Your task to perform on an android device: Is it going to rain tomorrow? Image 0: 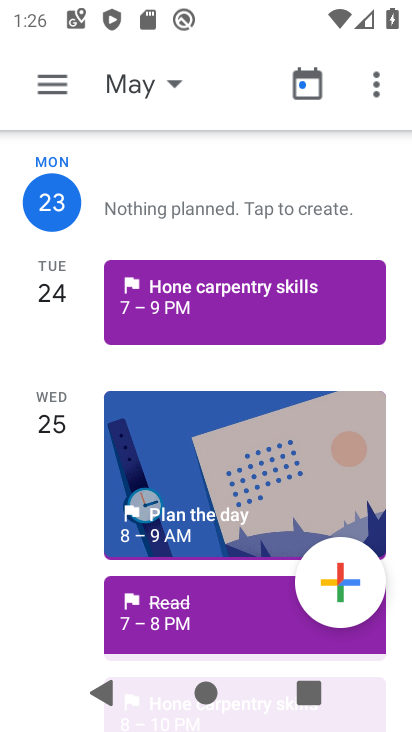
Step 0: press back button
Your task to perform on an android device: Is it going to rain tomorrow? Image 1: 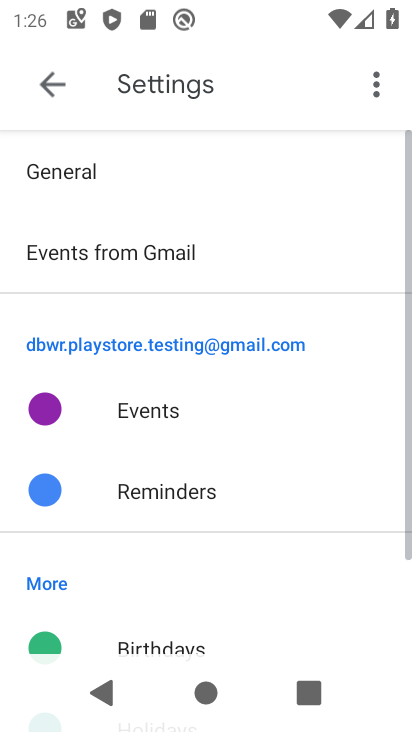
Step 1: press back button
Your task to perform on an android device: Is it going to rain tomorrow? Image 2: 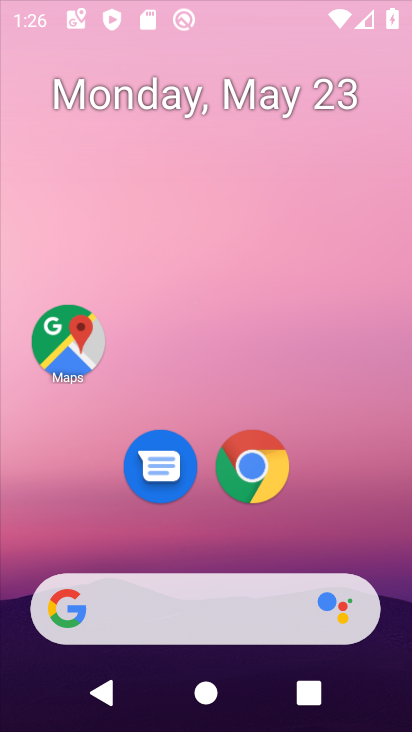
Step 2: press back button
Your task to perform on an android device: Is it going to rain tomorrow? Image 3: 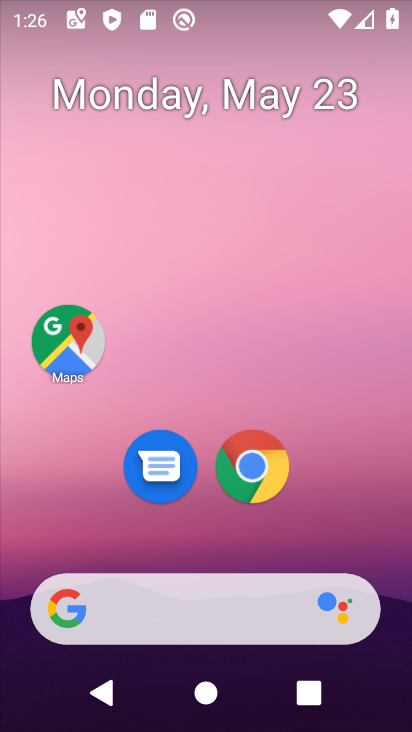
Step 3: drag from (332, 543) to (258, 114)
Your task to perform on an android device: Is it going to rain tomorrow? Image 4: 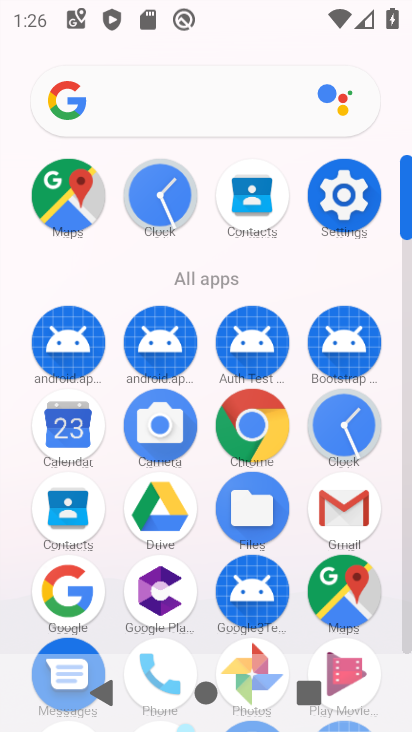
Step 4: click (64, 592)
Your task to perform on an android device: Is it going to rain tomorrow? Image 5: 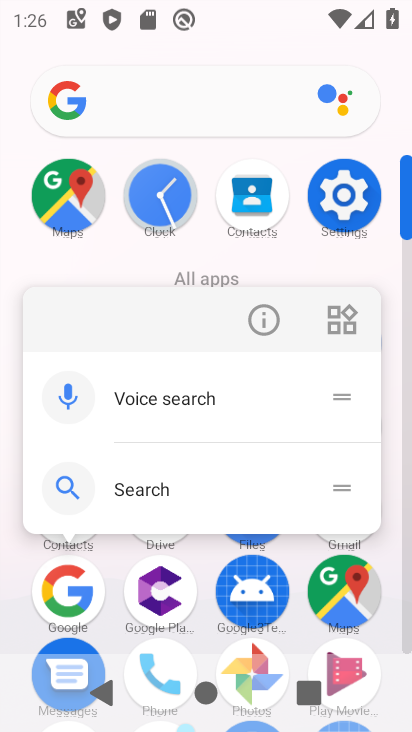
Step 5: click (64, 592)
Your task to perform on an android device: Is it going to rain tomorrow? Image 6: 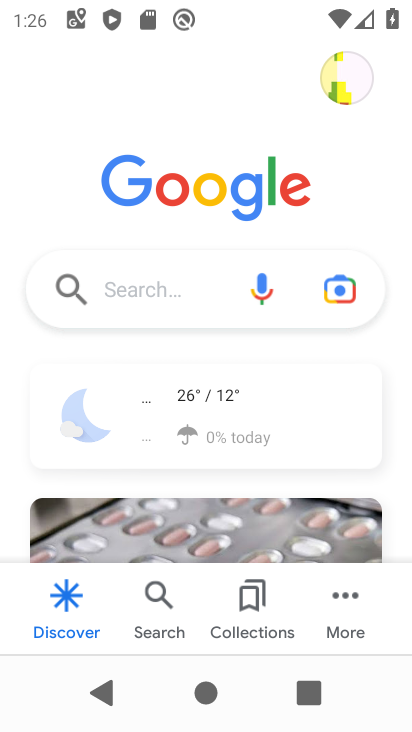
Step 6: click (172, 293)
Your task to perform on an android device: Is it going to rain tomorrow? Image 7: 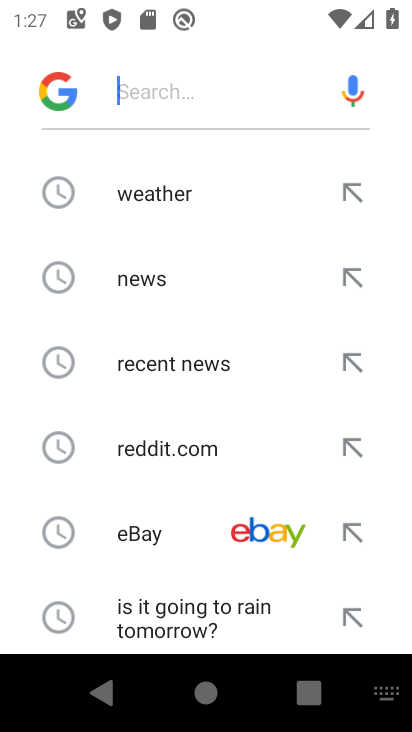
Step 7: type "Is it going to rain tomorrow"
Your task to perform on an android device: Is it going to rain tomorrow? Image 8: 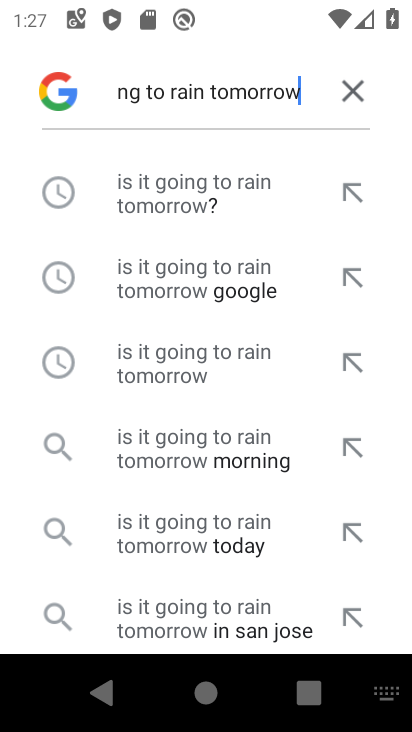
Step 8: click (201, 190)
Your task to perform on an android device: Is it going to rain tomorrow? Image 9: 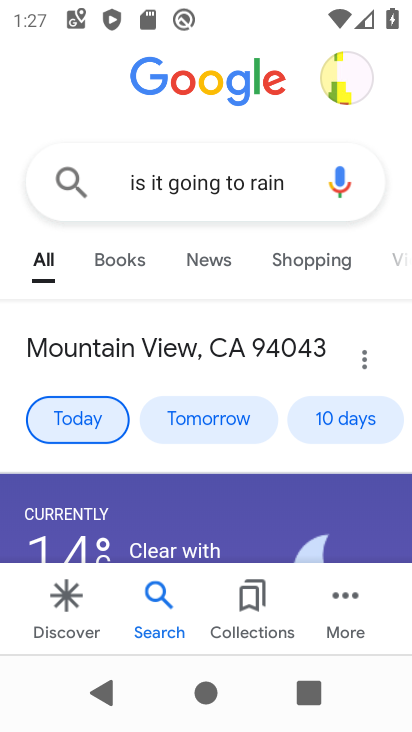
Step 9: click (227, 415)
Your task to perform on an android device: Is it going to rain tomorrow? Image 10: 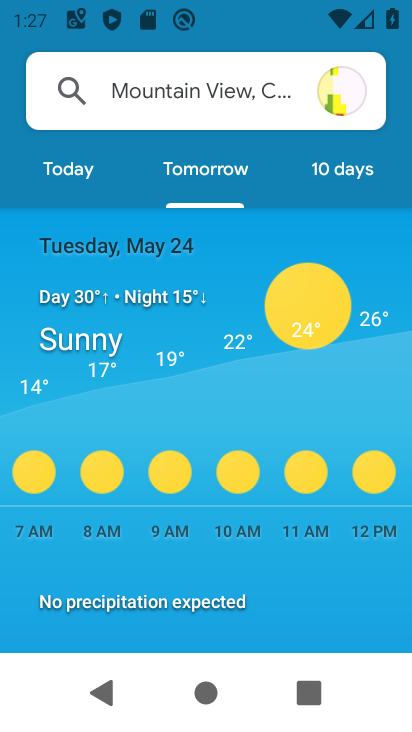
Step 10: task complete